Your task to perform on an android device: empty trash in the gmail app Image 0: 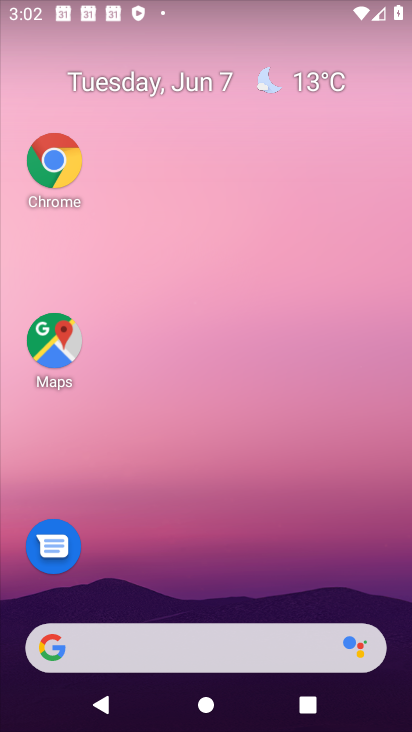
Step 0: drag from (161, 498) to (322, 40)
Your task to perform on an android device: empty trash in the gmail app Image 1: 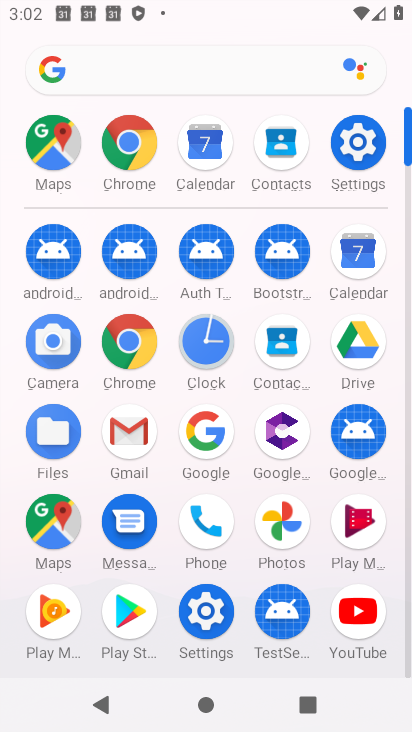
Step 1: click (116, 433)
Your task to perform on an android device: empty trash in the gmail app Image 2: 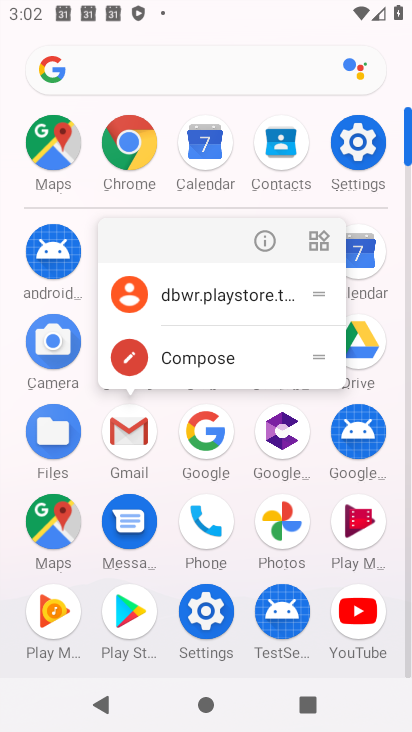
Step 2: click (271, 235)
Your task to perform on an android device: empty trash in the gmail app Image 3: 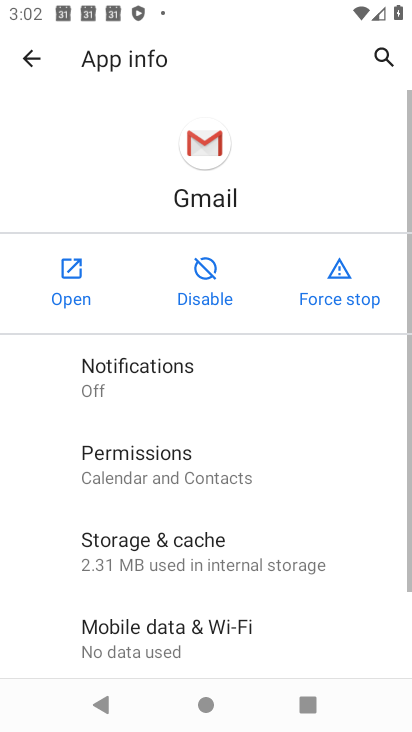
Step 3: click (45, 282)
Your task to perform on an android device: empty trash in the gmail app Image 4: 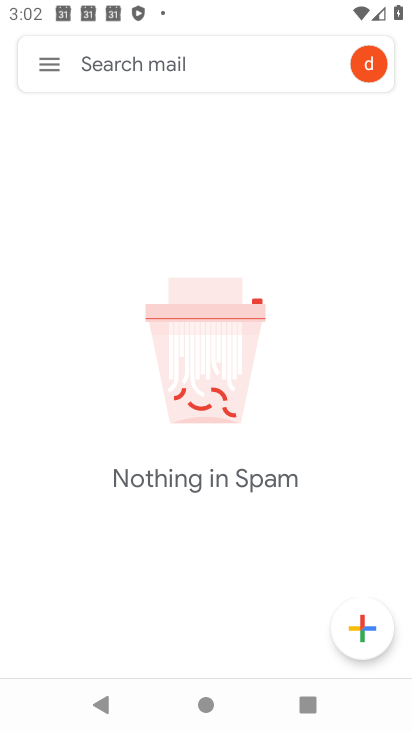
Step 4: click (45, 54)
Your task to perform on an android device: empty trash in the gmail app Image 5: 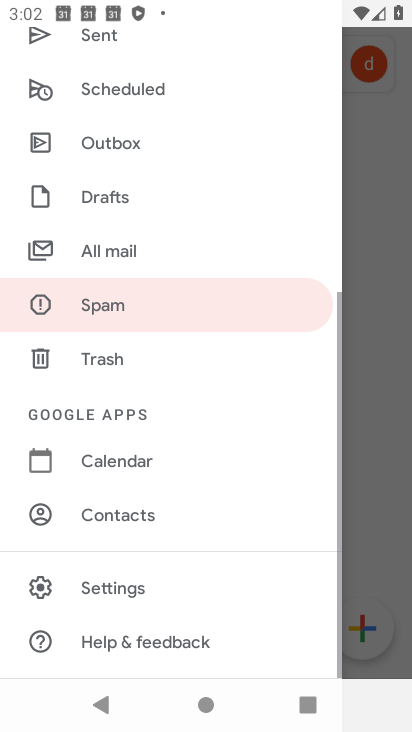
Step 5: click (48, 74)
Your task to perform on an android device: empty trash in the gmail app Image 6: 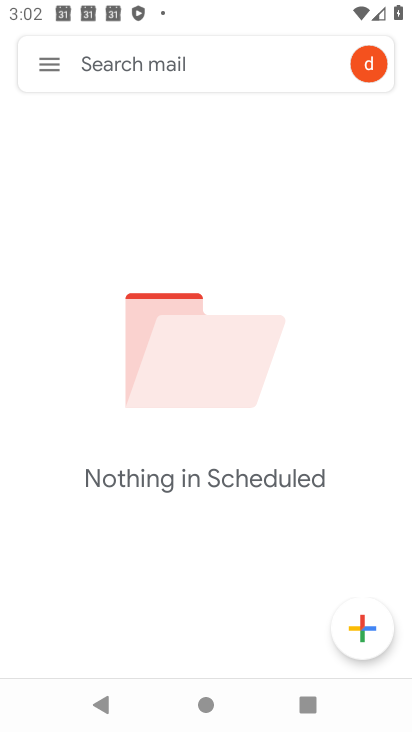
Step 6: click (52, 76)
Your task to perform on an android device: empty trash in the gmail app Image 7: 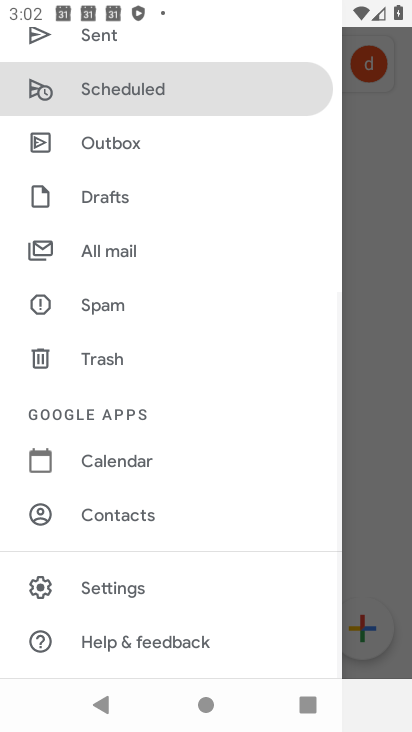
Step 7: click (61, 58)
Your task to perform on an android device: empty trash in the gmail app Image 8: 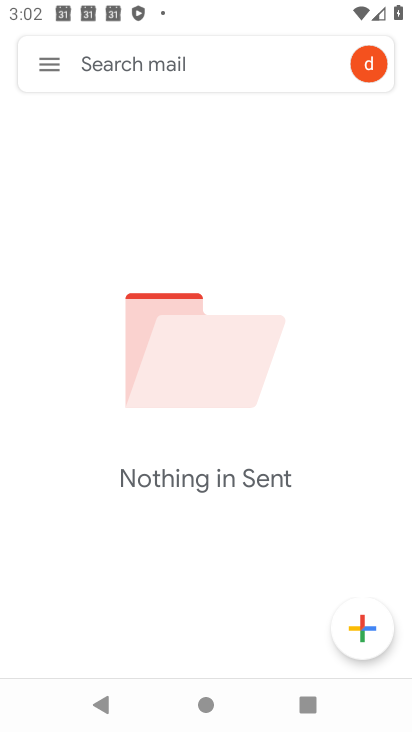
Step 8: click (42, 54)
Your task to perform on an android device: empty trash in the gmail app Image 9: 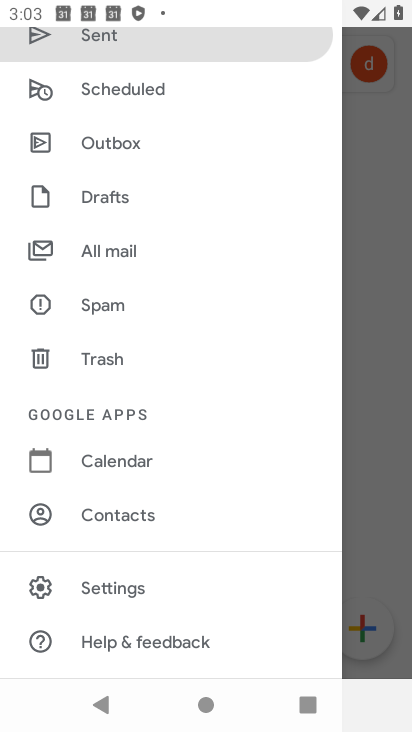
Step 9: click (95, 364)
Your task to perform on an android device: empty trash in the gmail app Image 10: 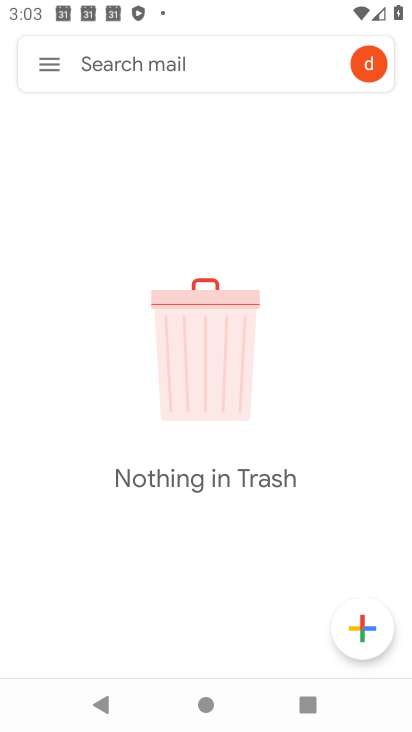
Step 10: task complete